Your task to perform on an android device: Open location settings Image 0: 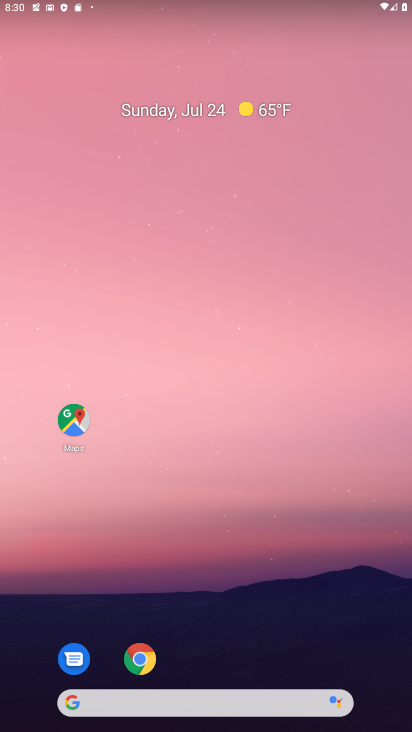
Step 0: drag from (268, 678) to (279, 9)
Your task to perform on an android device: Open location settings Image 1: 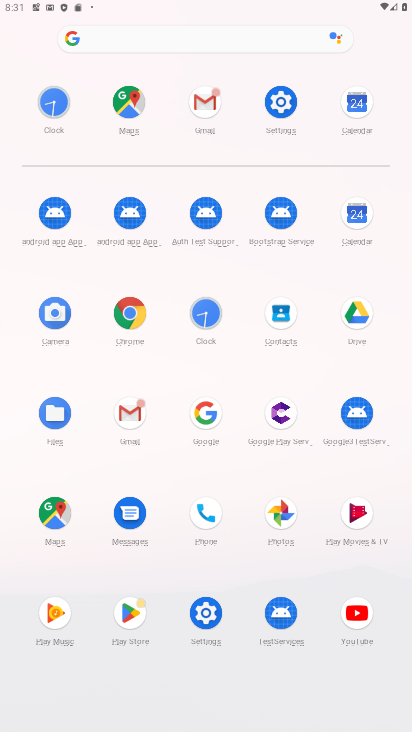
Step 1: click (276, 106)
Your task to perform on an android device: Open location settings Image 2: 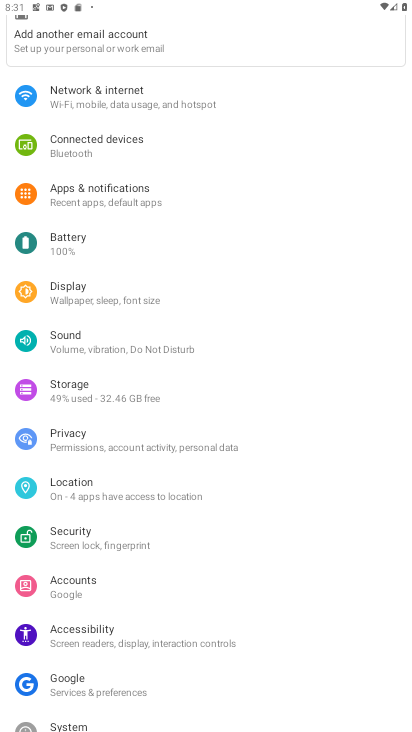
Step 2: click (68, 491)
Your task to perform on an android device: Open location settings Image 3: 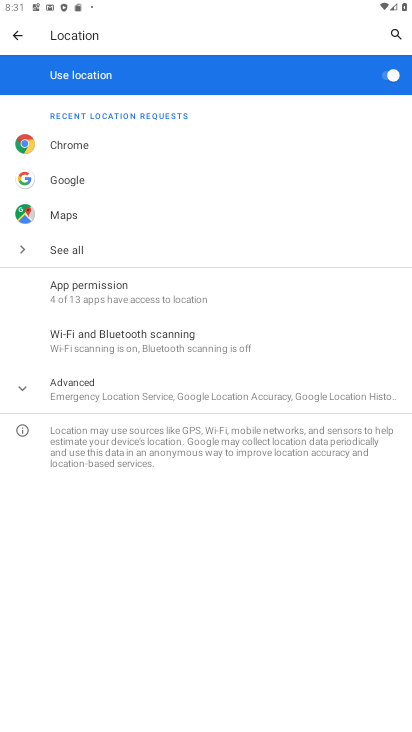
Step 3: task complete